Your task to perform on an android device: all mails in gmail Image 0: 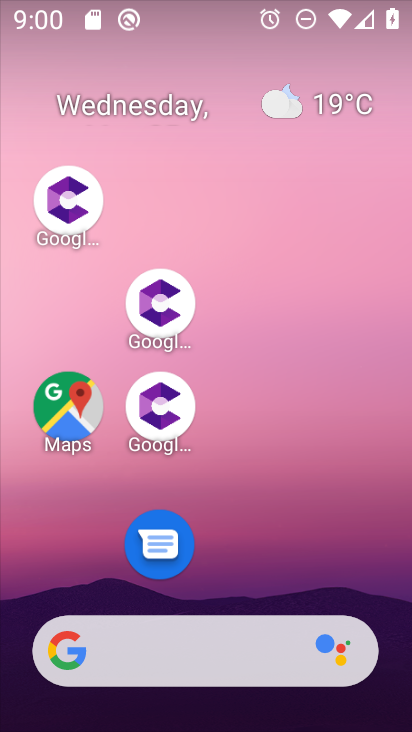
Step 0: drag from (329, 501) to (209, 5)
Your task to perform on an android device: all mails in gmail Image 1: 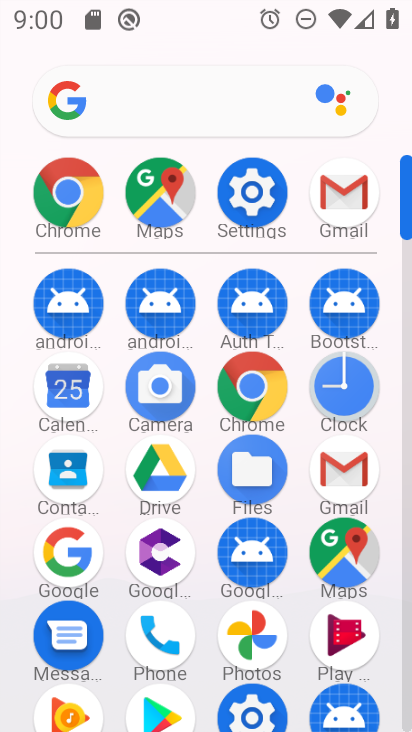
Step 1: click (340, 191)
Your task to perform on an android device: all mails in gmail Image 2: 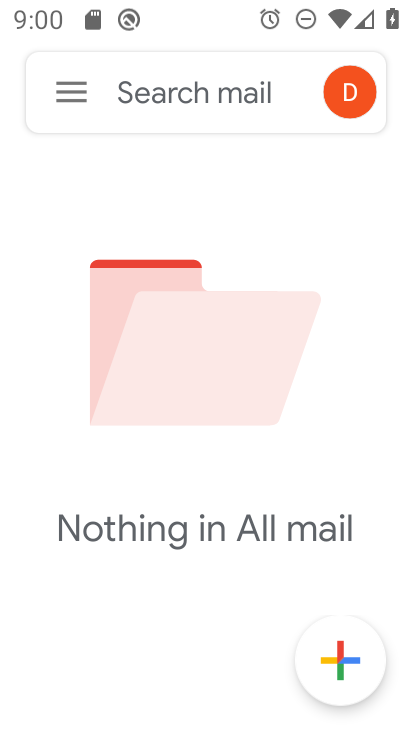
Step 2: click (64, 84)
Your task to perform on an android device: all mails in gmail Image 3: 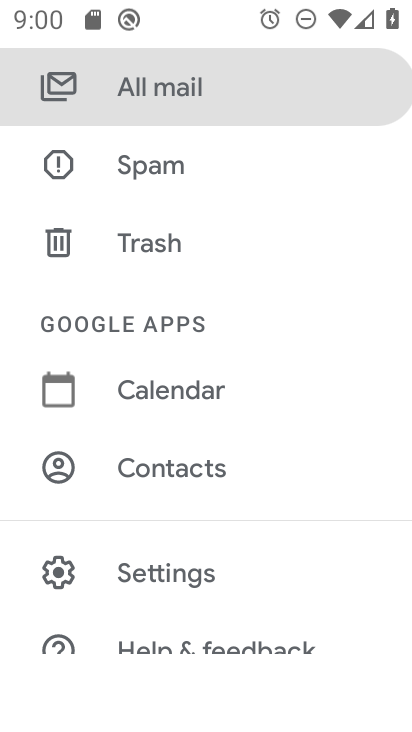
Step 3: click (166, 87)
Your task to perform on an android device: all mails in gmail Image 4: 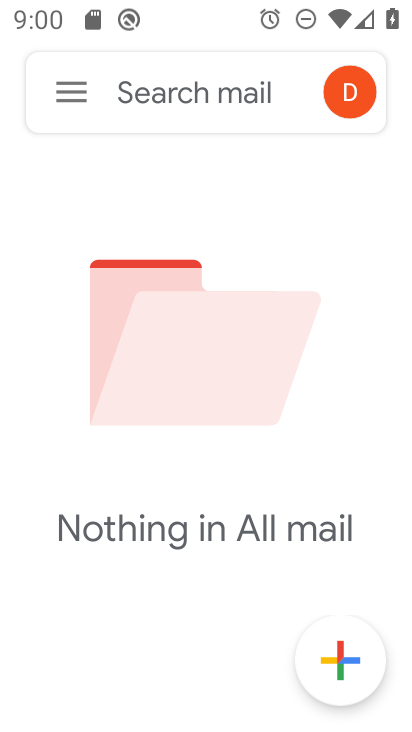
Step 4: task complete